Your task to perform on an android device: Install the Facebook app Image 0: 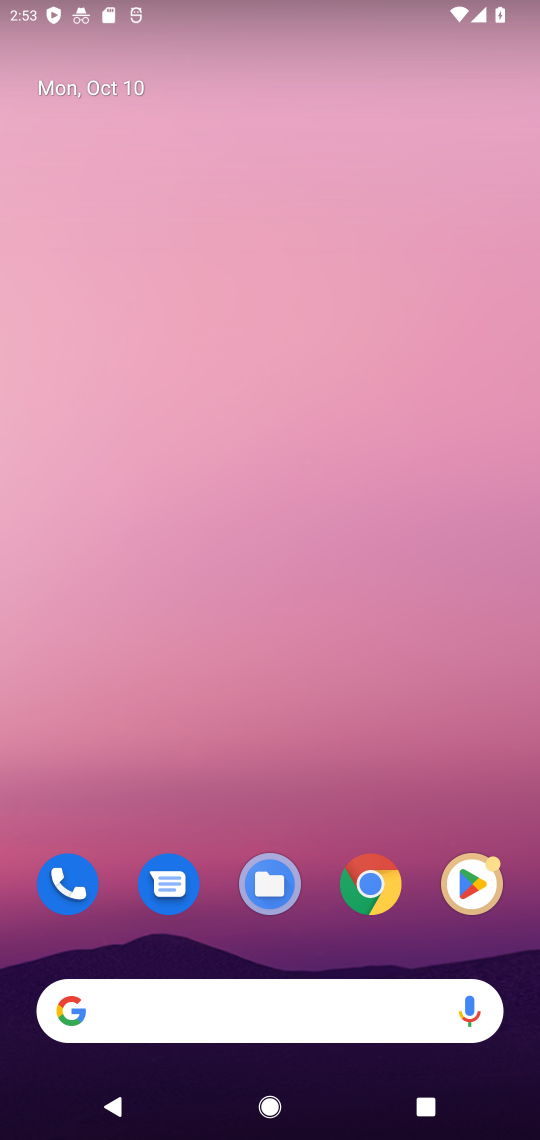
Step 0: click (483, 879)
Your task to perform on an android device: Install the Facebook app Image 1: 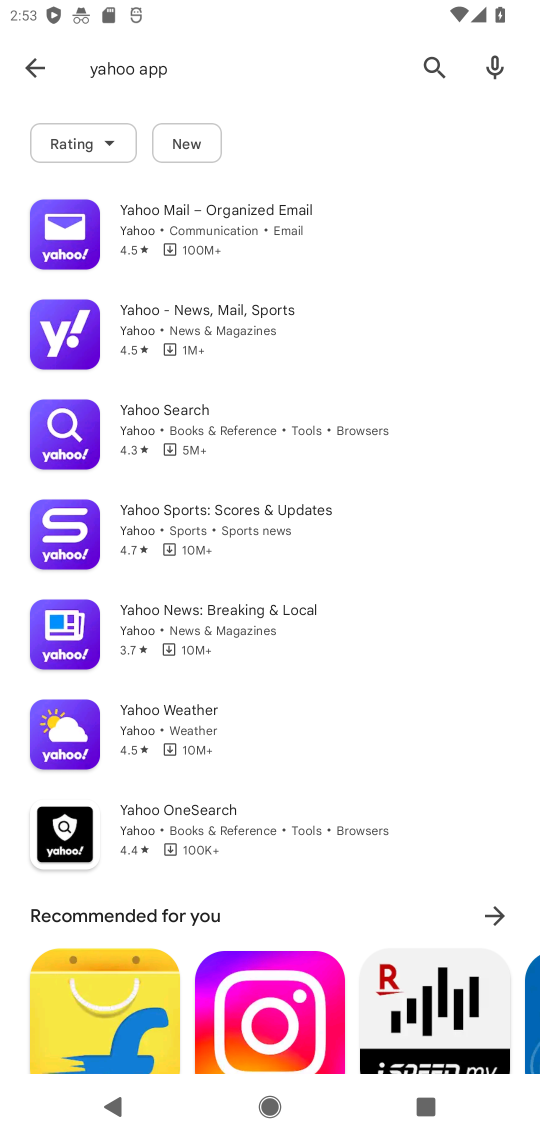
Step 1: click (425, 60)
Your task to perform on an android device: Install the Facebook app Image 2: 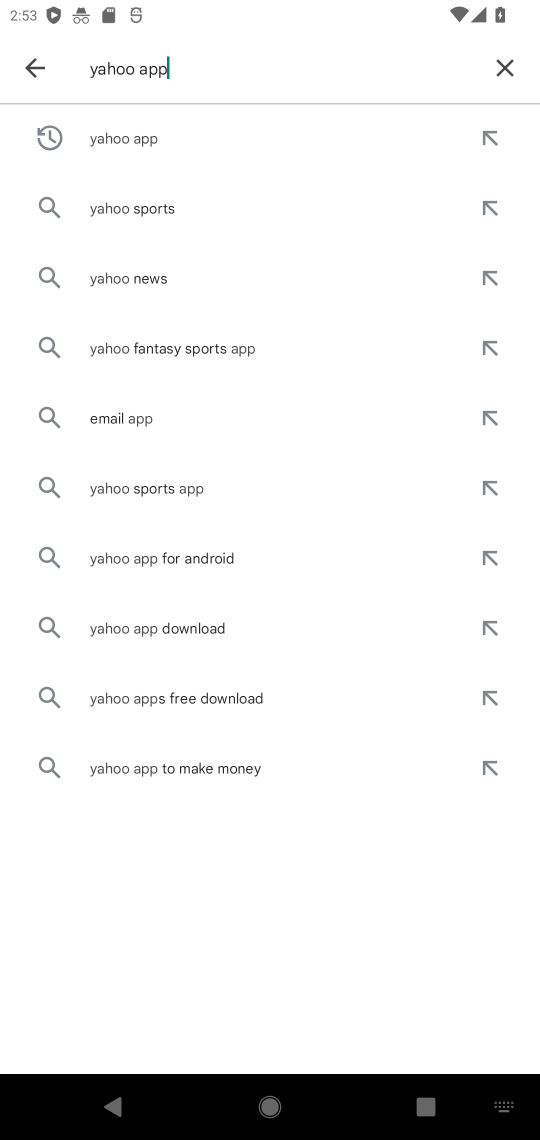
Step 2: click (507, 67)
Your task to perform on an android device: Install the Facebook app Image 3: 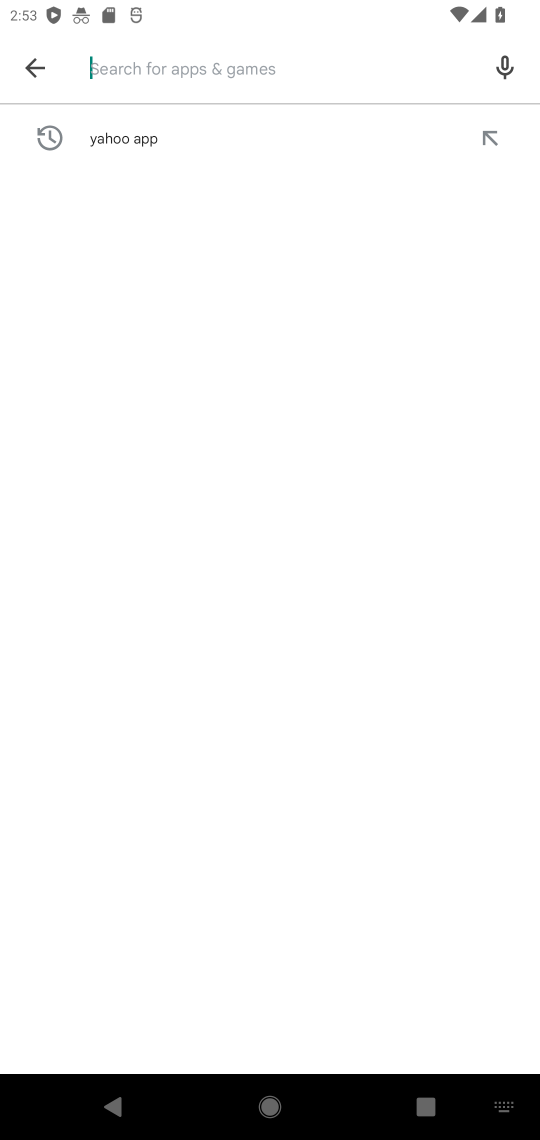
Step 3: type "face"
Your task to perform on an android device: Install the Facebook app Image 4: 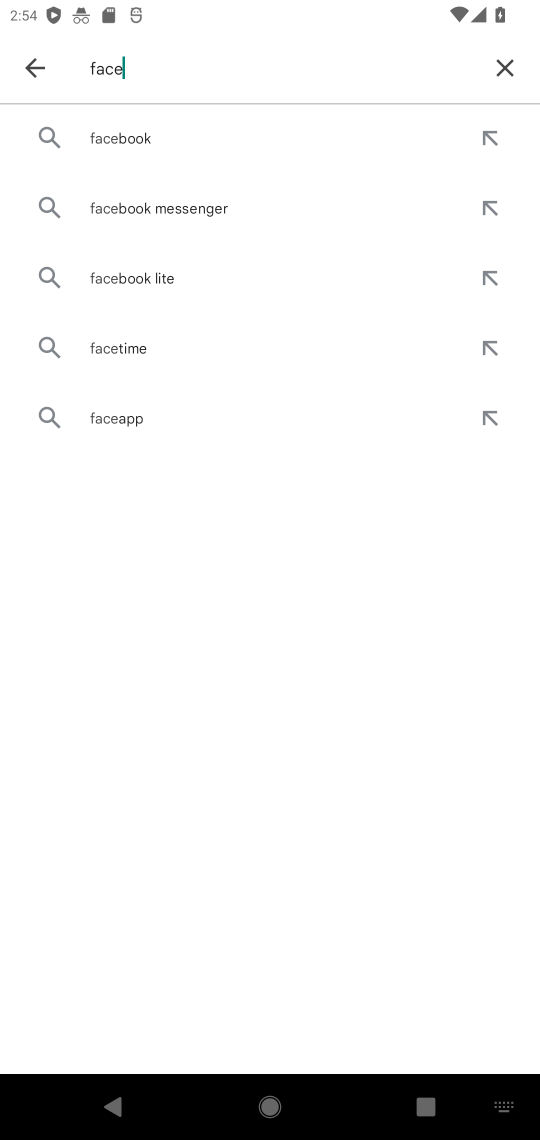
Step 4: click (147, 132)
Your task to perform on an android device: Install the Facebook app Image 5: 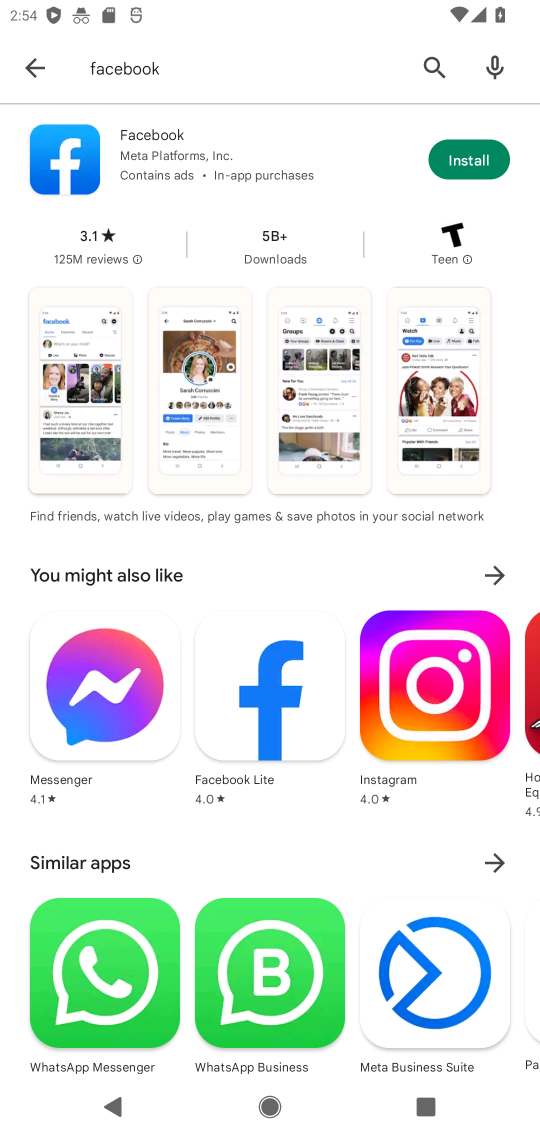
Step 5: click (485, 170)
Your task to perform on an android device: Install the Facebook app Image 6: 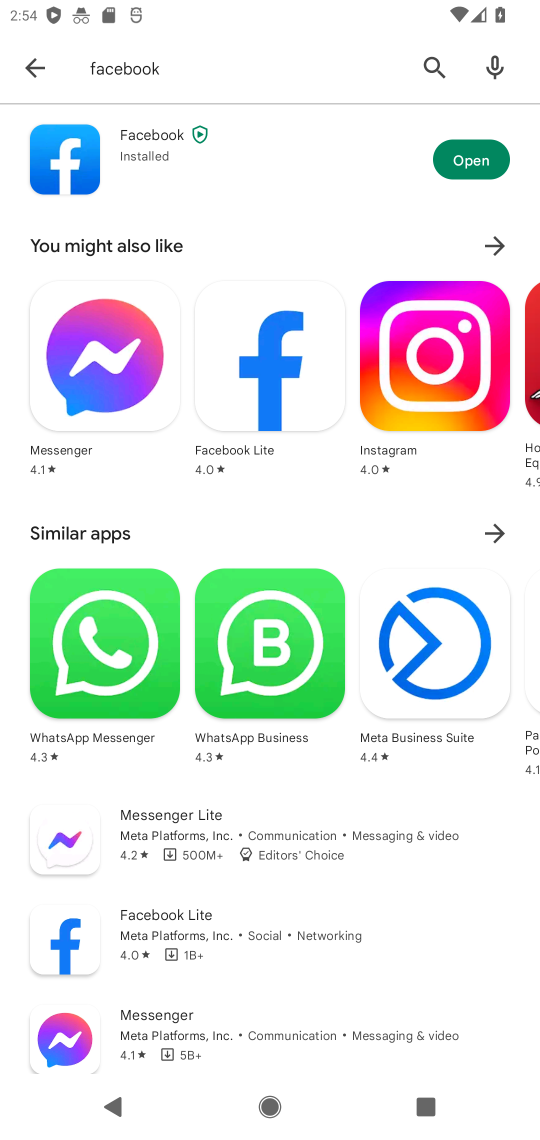
Step 6: task complete